Your task to perform on an android device: open app "Facebook Lite" (install if not already installed) Image 0: 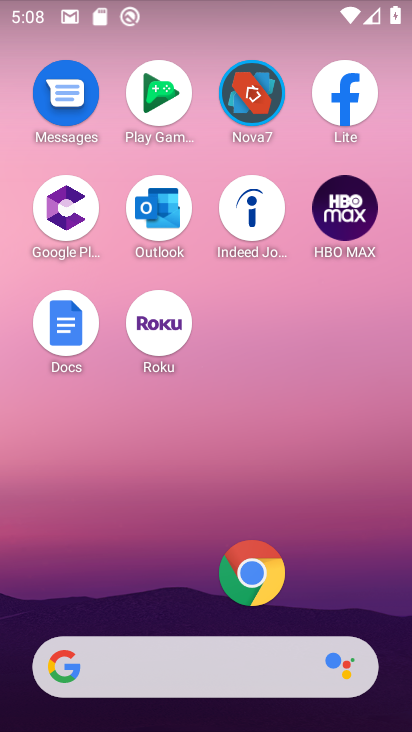
Step 0: drag from (187, 486) to (259, 3)
Your task to perform on an android device: open app "Facebook Lite" (install if not already installed) Image 1: 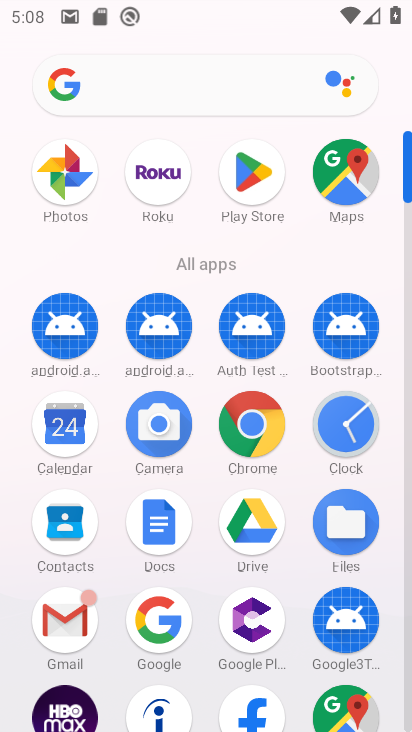
Step 1: click (239, 172)
Your task to perform on an android device: open app "Facebook Lite" (install if not already installed) Image 2: 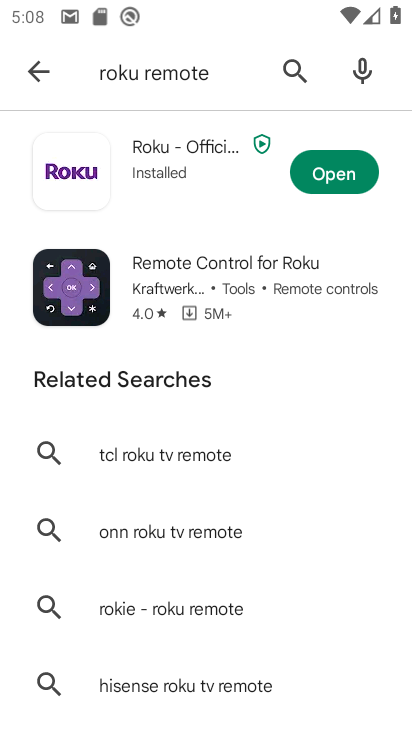
Step 2: click (24, 57)
Your task to perform on an android device: open app "Facebook Lite" (install if not already installed) Image 3: 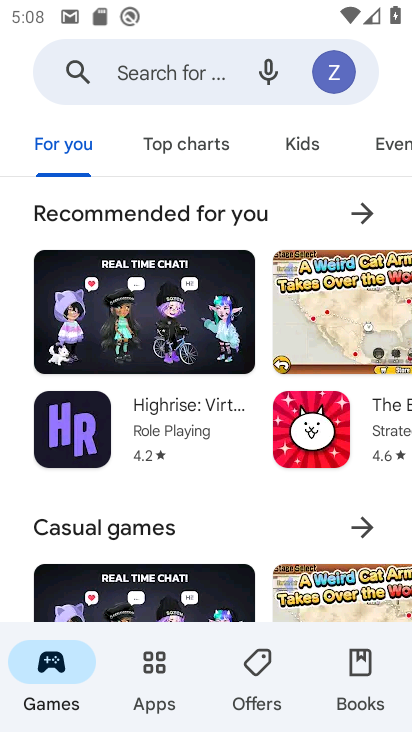
Step 3: click (170, 69)
Your task to perform on an android device: open app "Facebook Lite" (install if not already installed) Image 4: 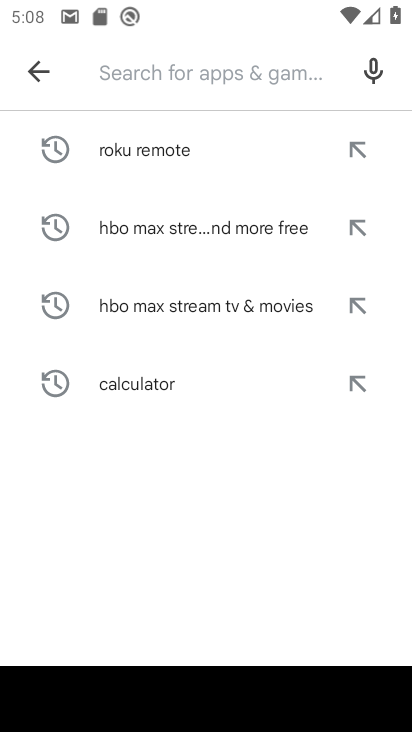
Step 4: type "Facebook Lite"
Your task to perform on an android device: open app "Facebook Lite" (install if not already installed) Image 5: 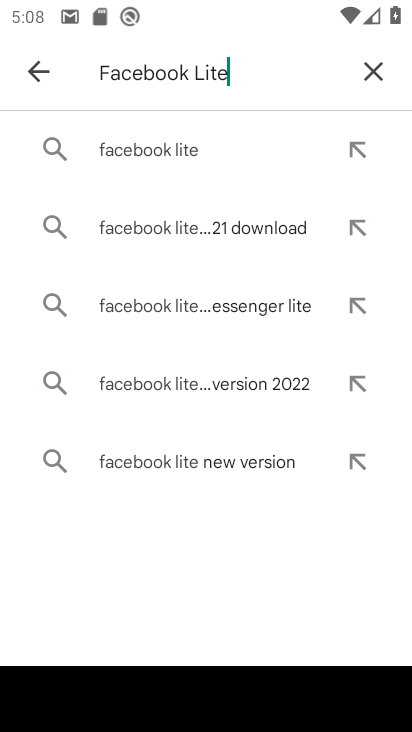
Step 5: click (167, 152)
Your task to perform on an android device: open app "Facebook Lite" (install if not already installed) Image 6: 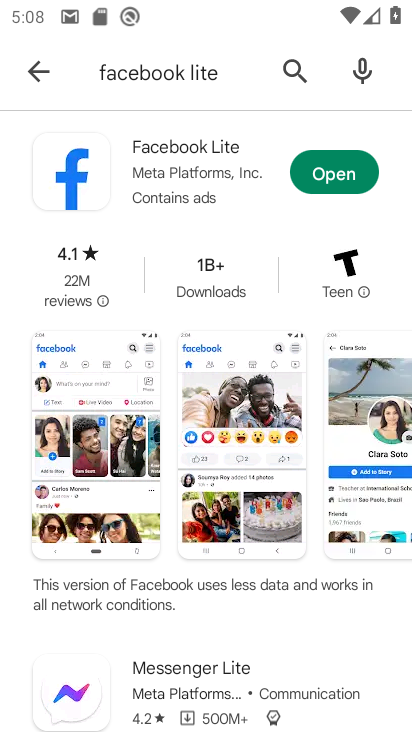
Step 6: click (322, 177)
Your task to perform on an android device: open app "Facebook Lite" (install if not already installed) Image 7: 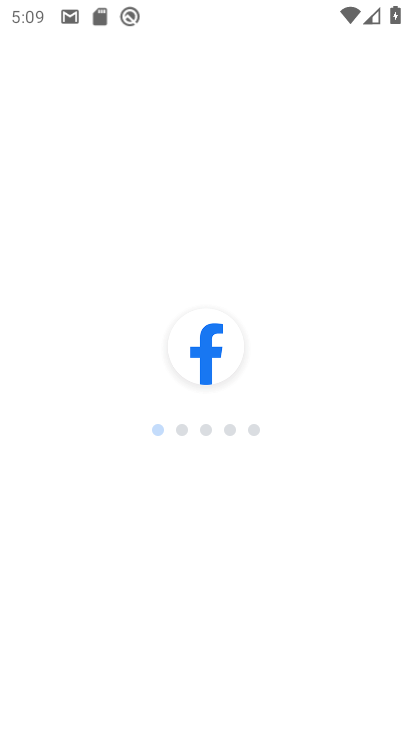
Step 7: task complete